Your task to perform on an android device: Check the news Image 0: 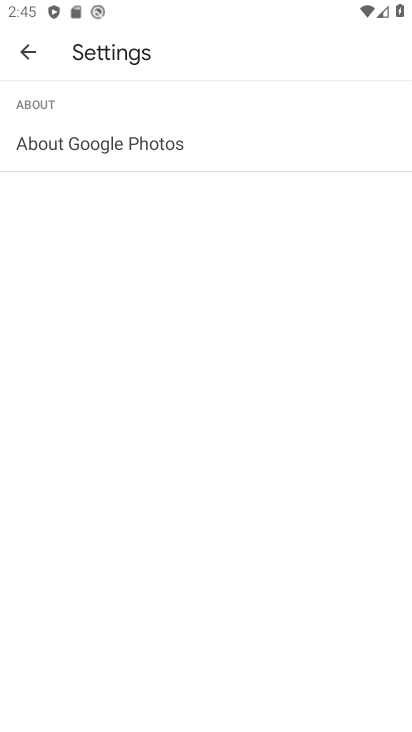
Step 0: press home button
Your task to perform on an android device: Check the news Image 1: 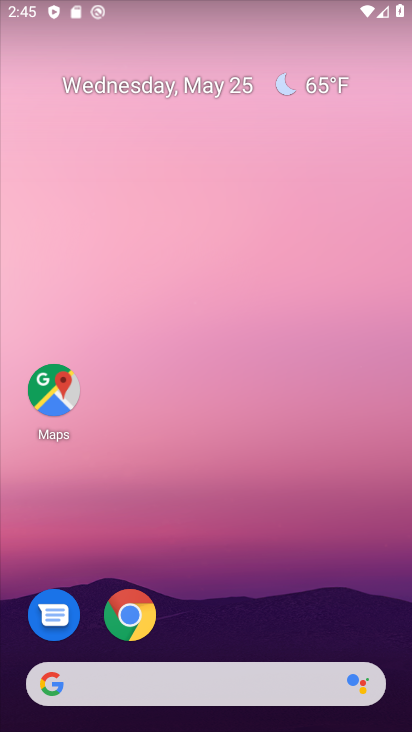
Step 1: task complete